Your task to perform on an android device: Open location settings Image 0: 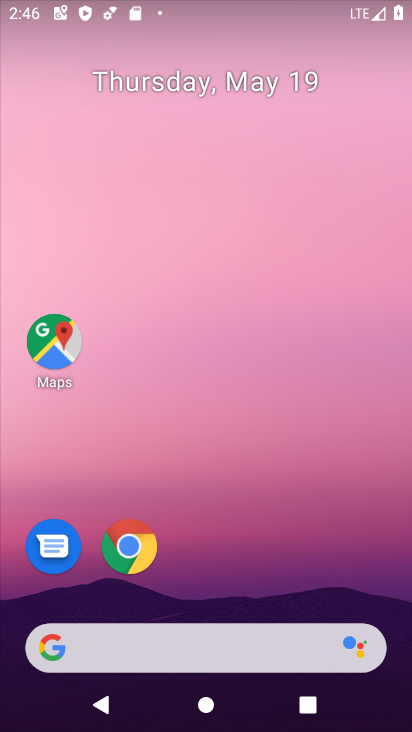
Step 0: press home button
Your task to perform on an android device: Open location settings Image 1: 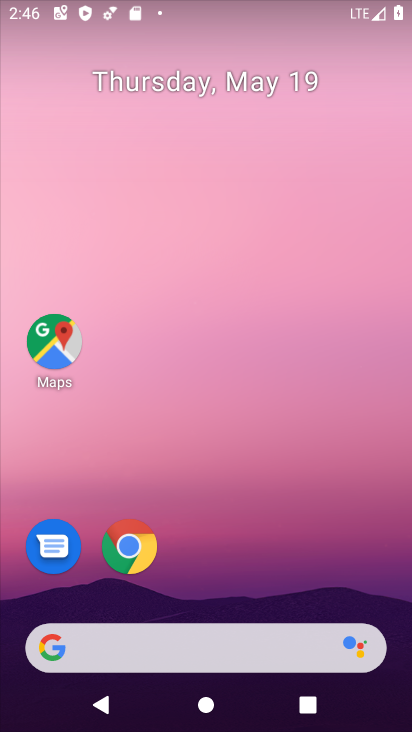
Step 1: drag from (179, 649) to (282, 168)
Your task to perform on an android device: Open location settings Image 2: 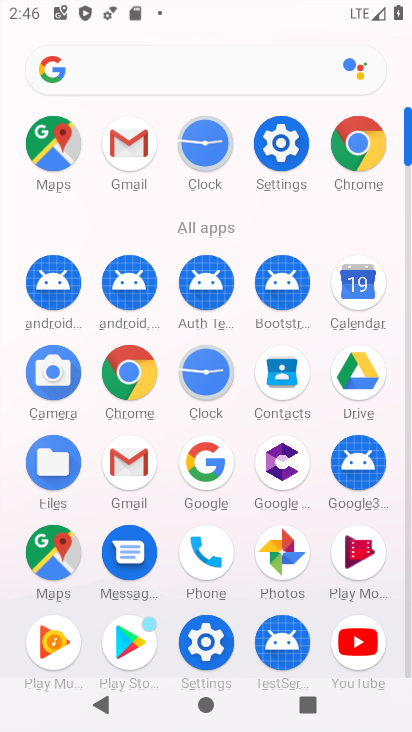
Step 2: click (270, 149)
Your task to perform on an android device: Open location settings Image 3: 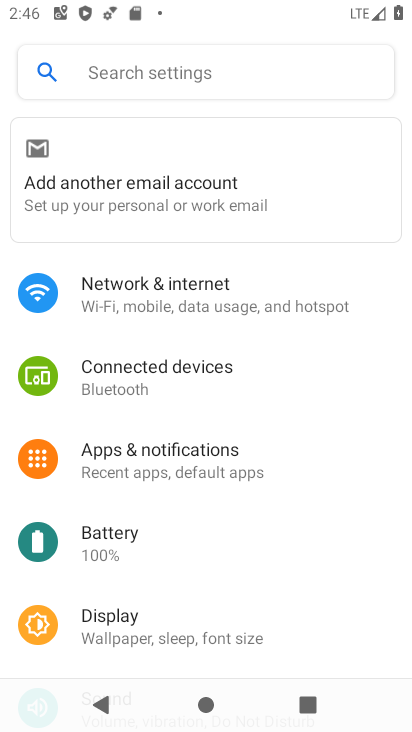
Step 3: drag from (232, 604) to (310, 148)
Your task to perform on an android device: Open location settings Image 4: 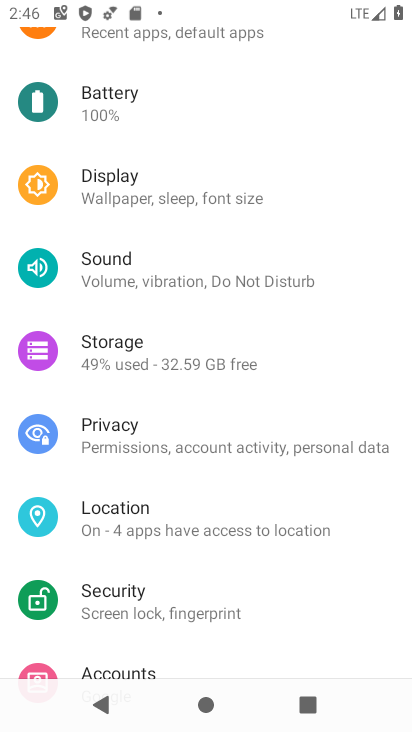
Step 4: click (159, 521)
Your task to perform on an android device: Open location settings Image 5: 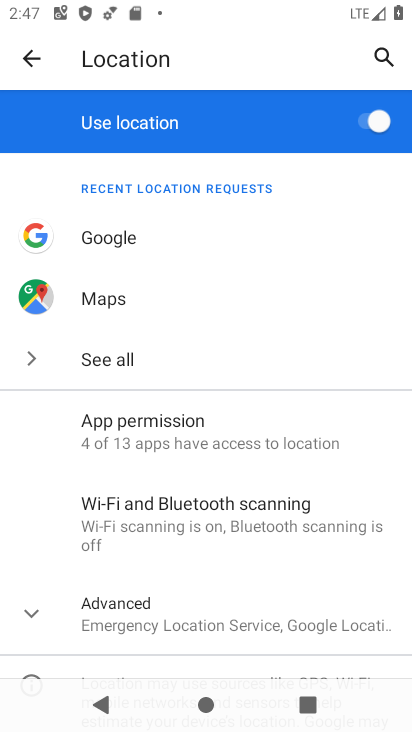
Step 5: task complete